Your task to perform on an android device: turn vacation reply on in the gmail app Image 0: 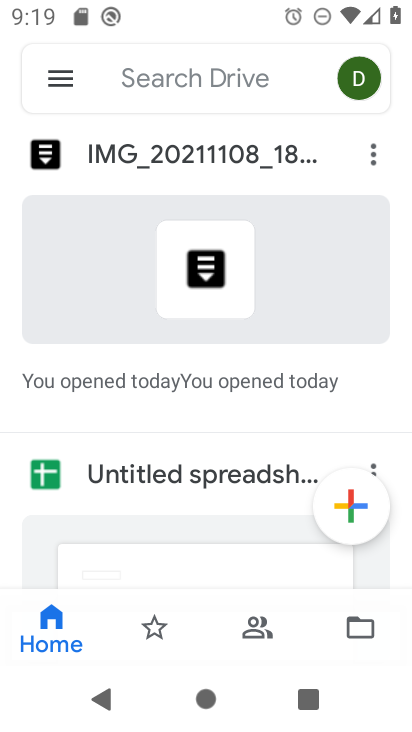
Step 0: press home button
Your task to perform on an android device: turn vacation reply on in the gmail app Image 1: 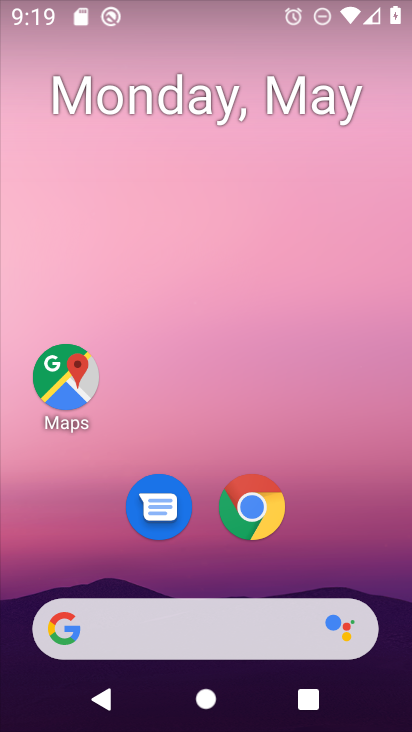
Step 1: drag from (186, 559) to (256, 5)
Your task to perform on an android device: turn vacation reply on in the gmail app Image 2: 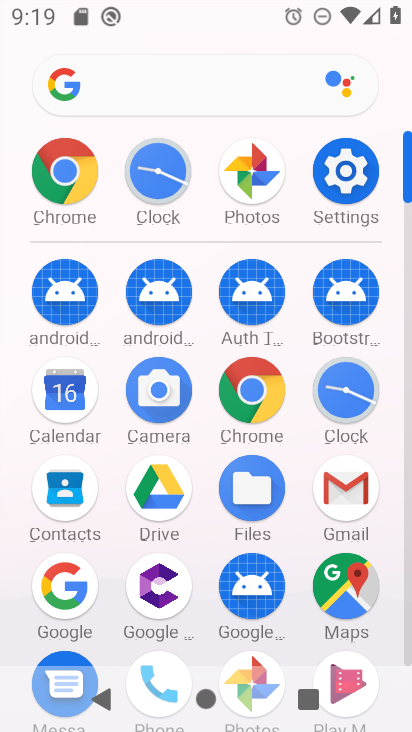
Step 2: click (349, 177)
Your task to perform on an android device: turn vacation reply on in the gmail app Image 3: 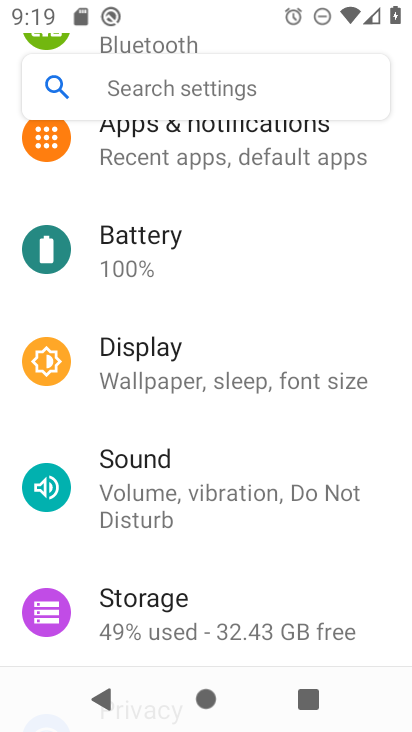
Step 3: press home button
Your task to perform on an android device: turn vacation reply on in the gmail app Image 4: 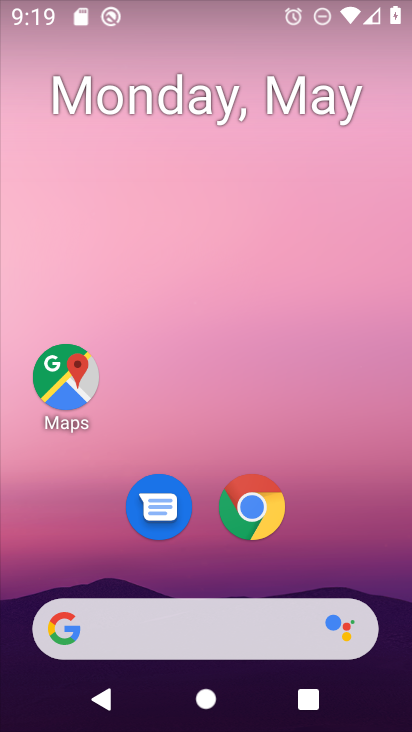
Step 4: drag from (206, 475) to (218, 10)
Your task to perform on an android device: turn vacation reply on in the gmail app Image 5: 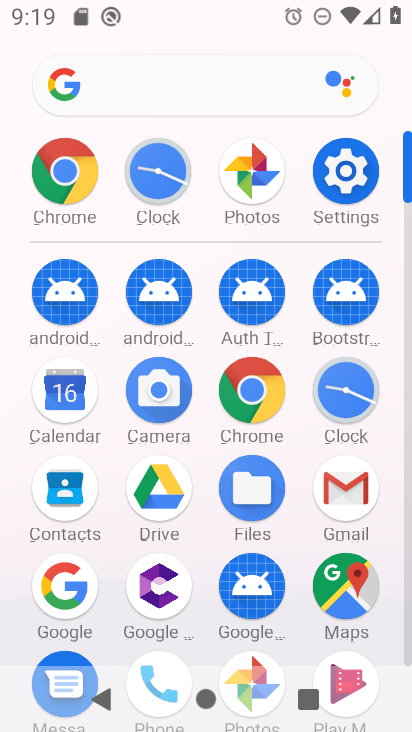
Step 5: click (352, 495)
Your task to perform on an android device: turn vacation reply on in the gmail app Image 6: 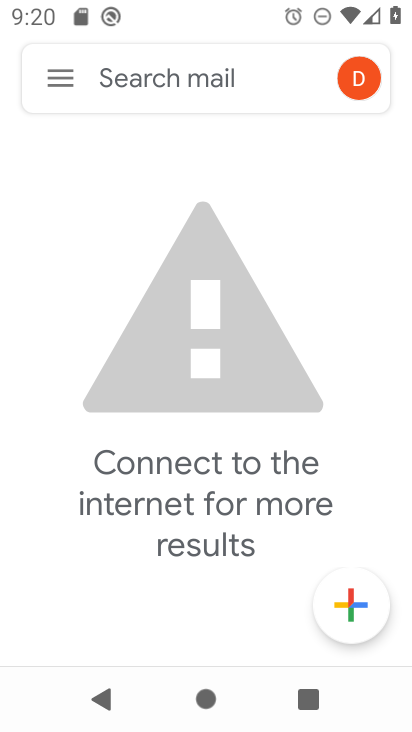
Step 6: click (50, 84)
Your task to perform on an android device: turn vacation reply on in the gmail app Image 7: 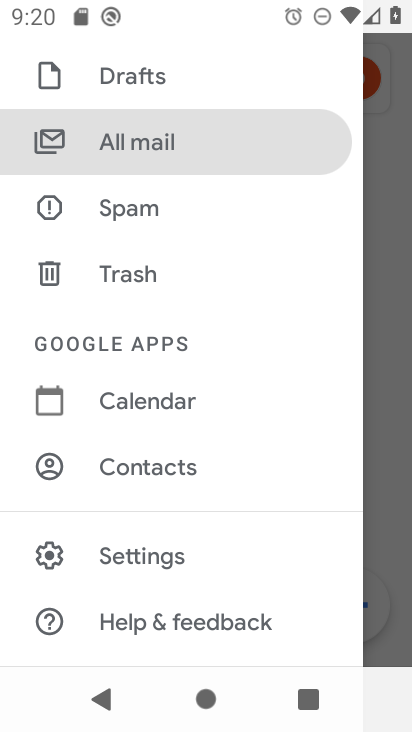
Step 7: click (149, 556)
Your task to perform on an android device: turn vacation reply on in the gmail app Image 8: 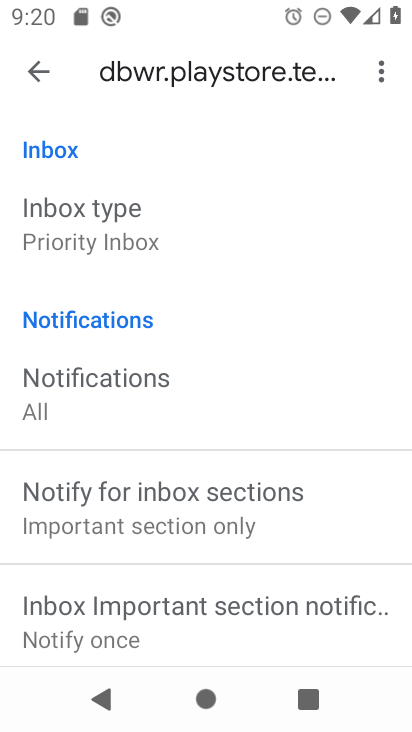
Step 8: drag from (96, 482) to (173, 102)
Your task to perform on an android device: turn vacation reply on in the gmail app Image 9: 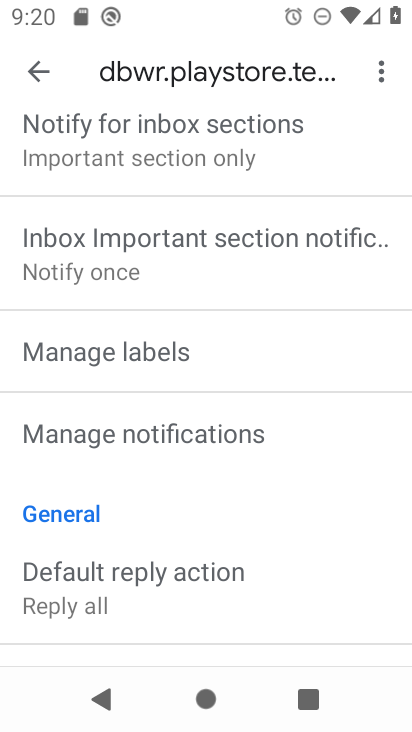
Step 9: drag from (90, 546) to (193, 180)
Your task to perform on an android device: turn vacation reply on in the gmail app Image 10: 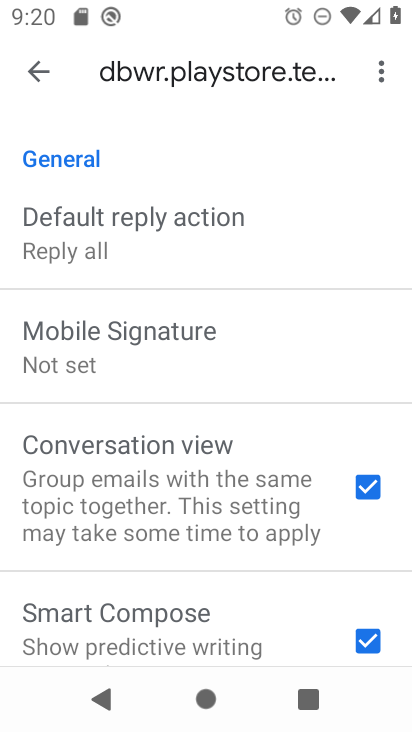
Step 10: drag from (166, 524) to (265, 174)
Your task to perform on an android device: turn vacation reply on in the gmail app Image 11: 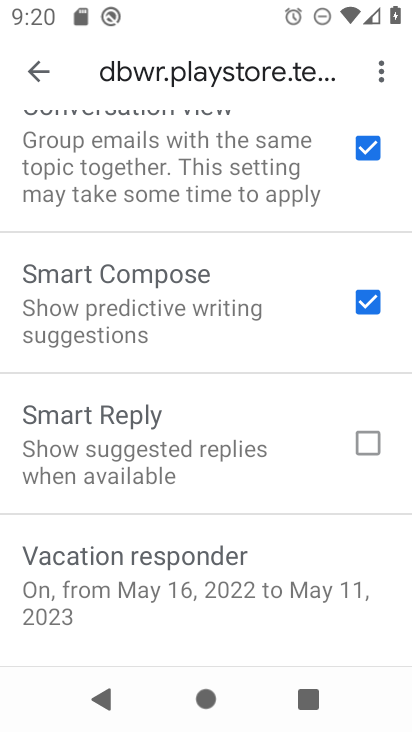
Step 11: click (179, 557)
Your task to perform on an android device: turn vacation reply on in the gmail app Image 12: 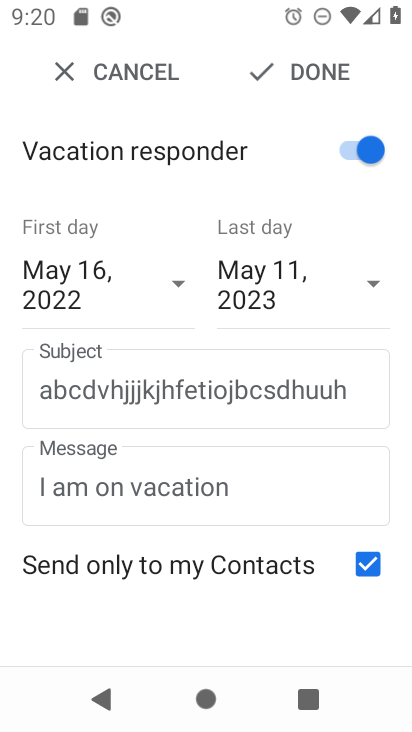
Step 12: task complete